Your task to perform on an android device: change text size in settings app Image 0: 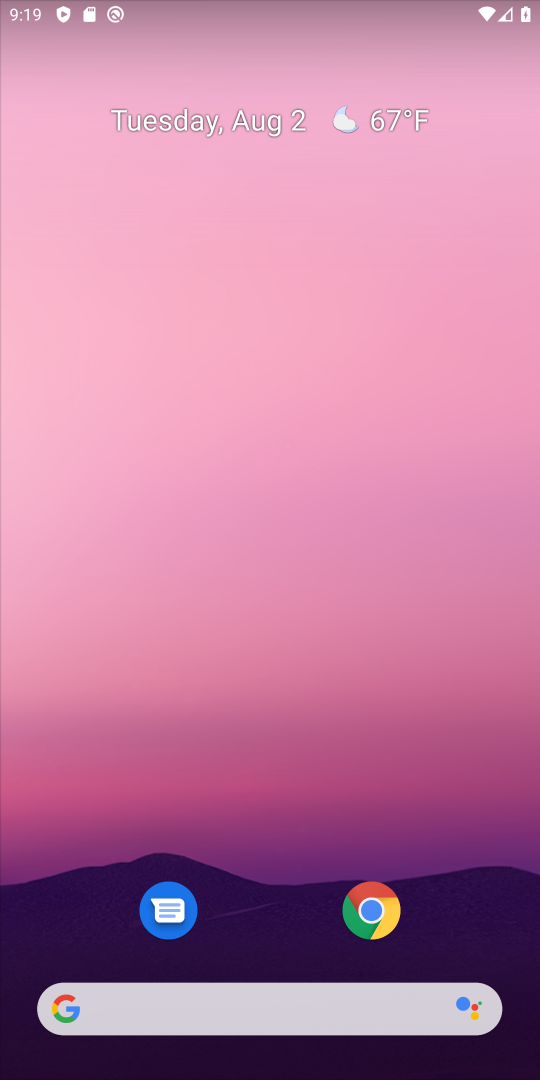
Step 0: drag from (250, 954) to (351, 391)
Your task to perform on an android device: change text size in settings app Image 1: 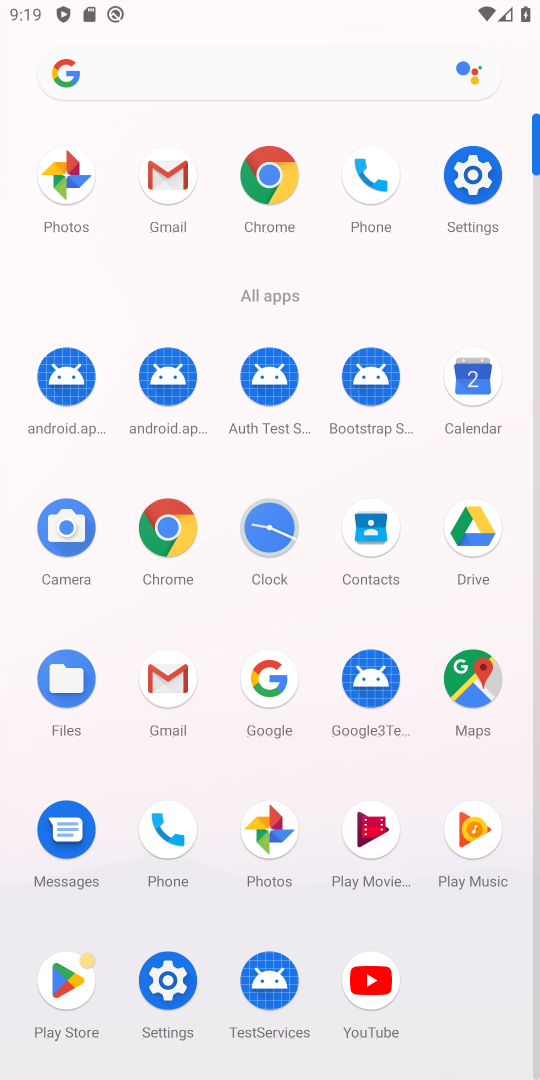
Step 1: click (479, 168)
Your task to perform on an android device: change text size in settings app Image 2: 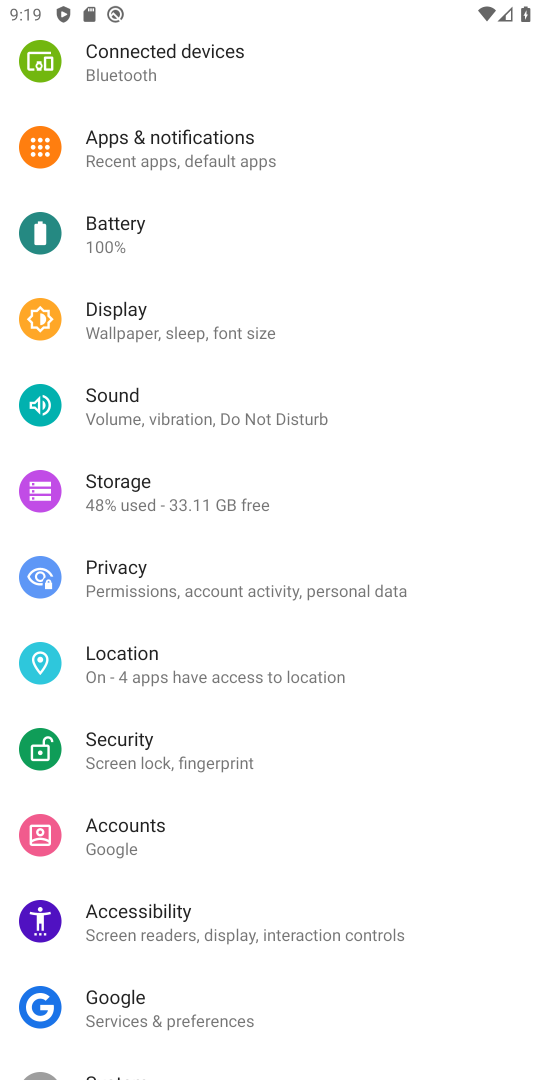
Step 2: click (171, 906)
Your task to perform on an android device: change text size in settings app Image 3: 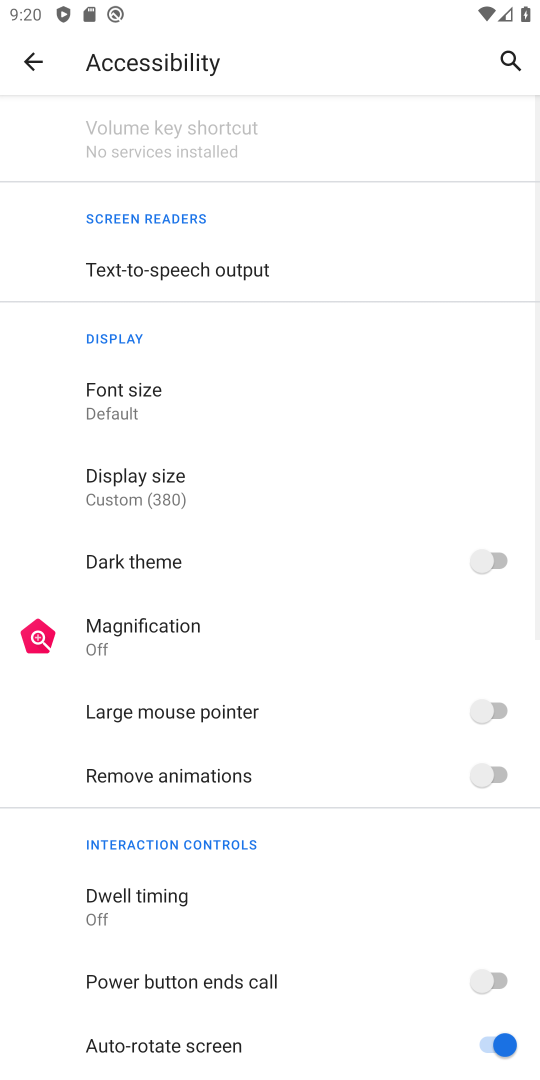
Step 3: click (146, 394)
Your task to perform on an android device: change text size in settings app Image 4: 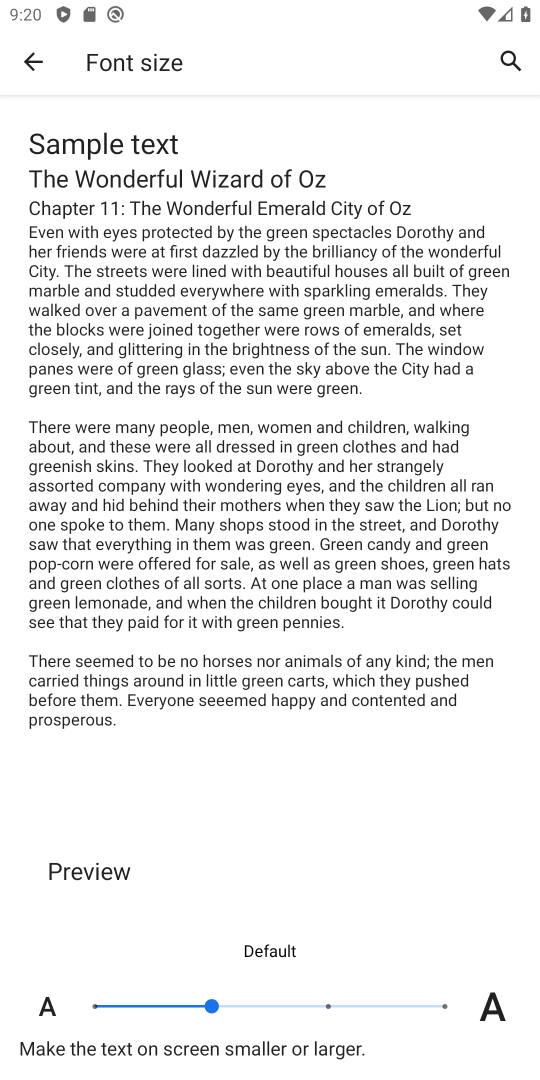
Step 4: click (309, 1003)
Your task to perform on an android device: change text size in settings app Image 5: 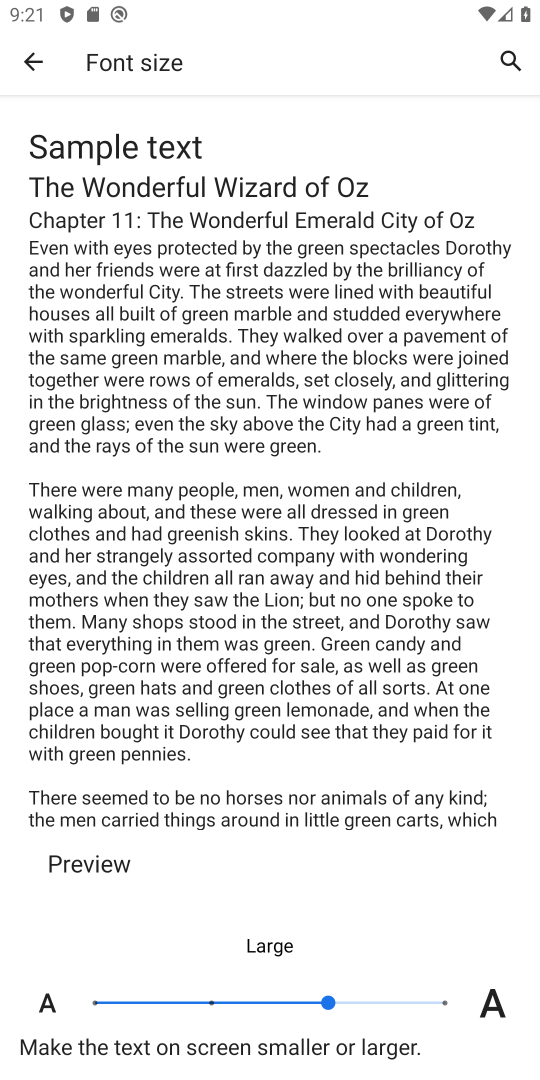
Step 5: task complete